Your task to perform on an android device: Open eBay Image 0: 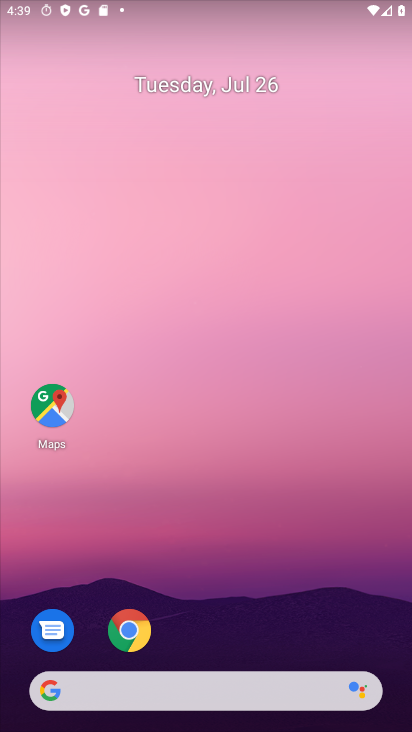
Step 0: drag from (271, 581) to (248, 62)
Your task to perform on an android device: Open eBay Image 1: 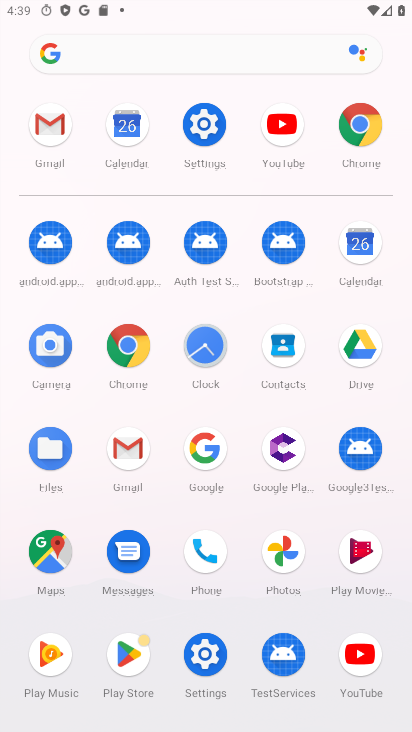
Step 1: click (361, 122)
Your task to perform on an android device: Open eBay Image 2: 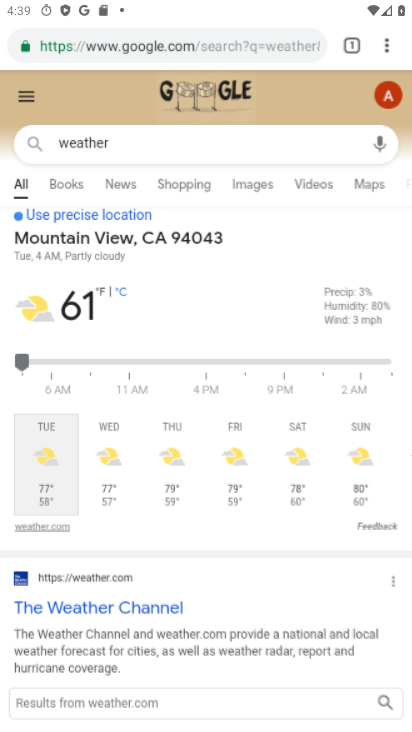
Step 2: click (208, 51)
Your task to perform on an android device: Open eBay Image 3: 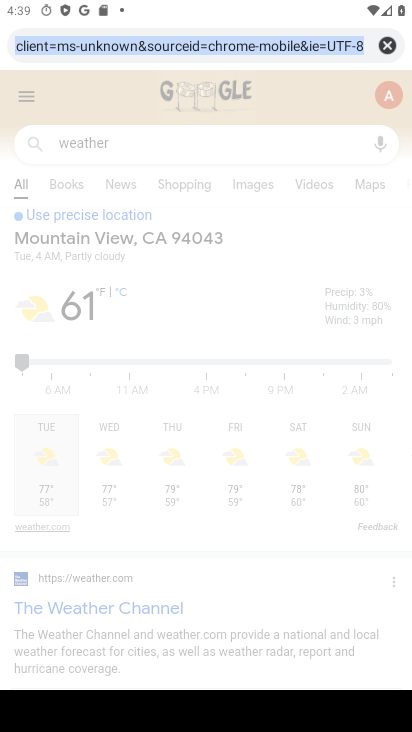
Step 3: type "ebay"
Your task to perform on an android device: Open eBay Image 4: 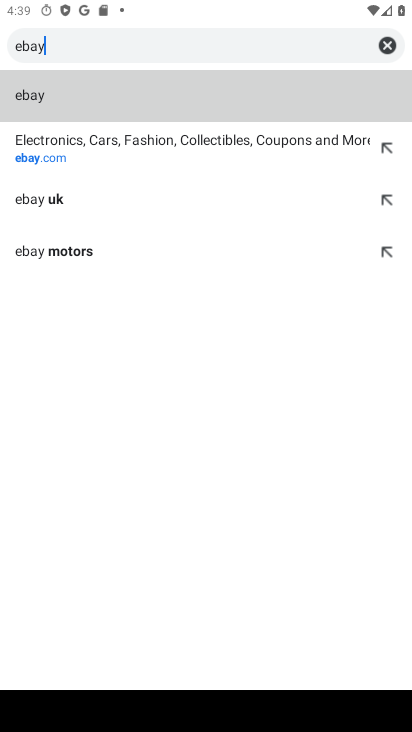
Step 4: click (70, 167)
Your task to perform on an android device: Open eBay Image 5: 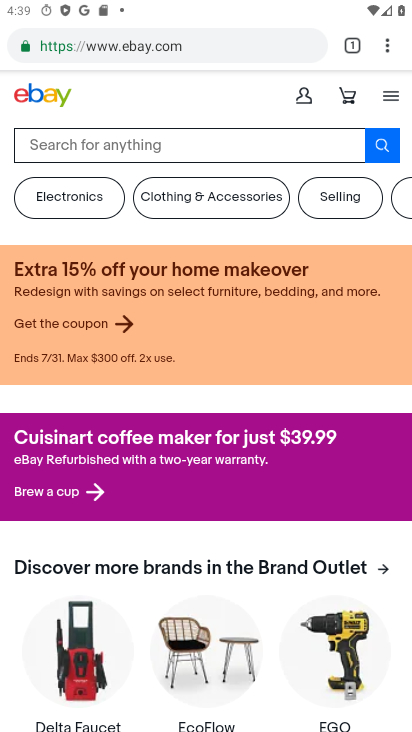
Step 5: task complete